Your task to perform on an android device: Open display settings Image 0: 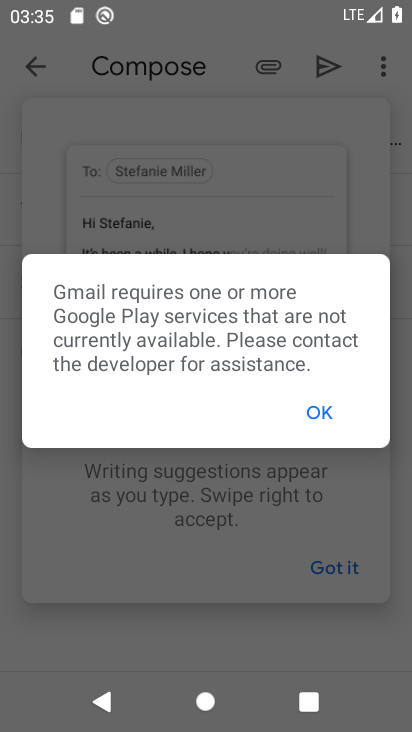
Step 0: press home button
Your task to perform on an android device: Open display settings Image 1: 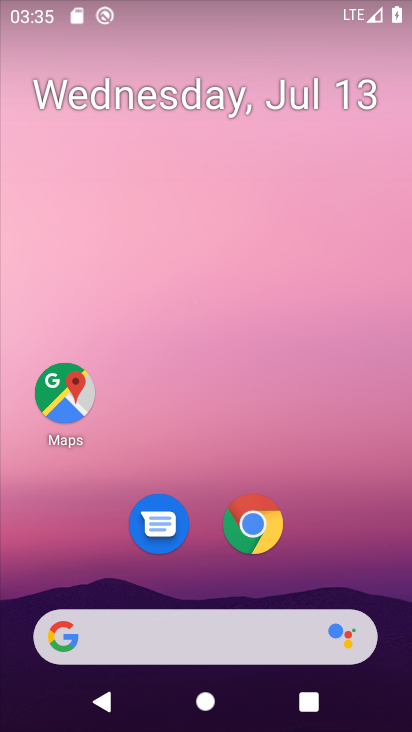
Step 1: drag from (329, 525) to (305, 56)
Your task to perform on an android device: Open display settings Image 2: 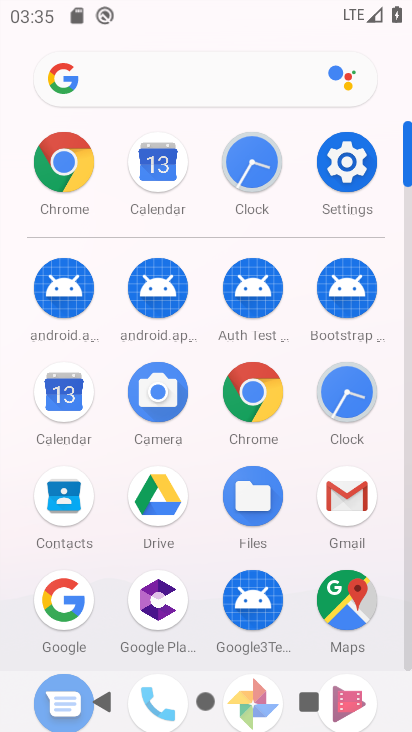
Step 2: click (339, 164)
Your task to perform on an android device: Open display settings Image 3: 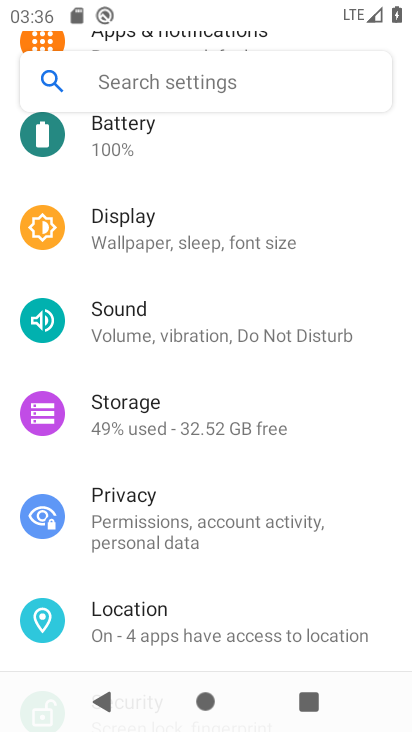
Step 3: click (229, 230)
Your task to perform on an android device: Open display settings Image 4: 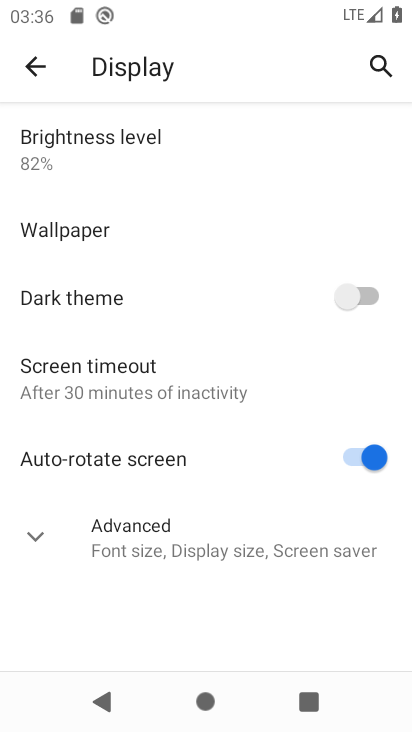
Step 4: task complete